Your task to perform on an android device: turn off notifications in google photos Image 0: 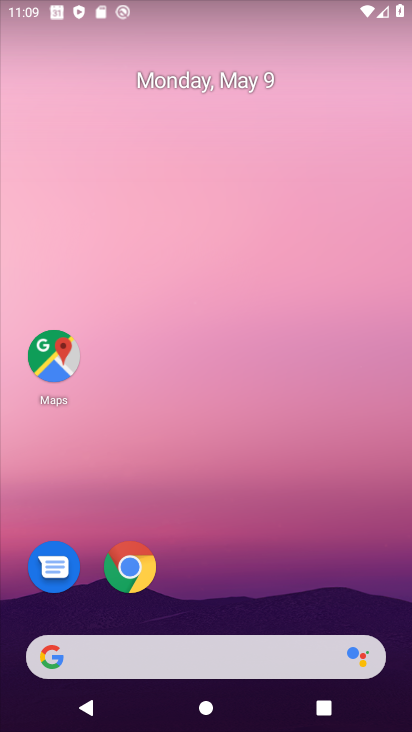
Step 0: drag from (399, 620) to (288, 114)
Your task to perform on an android device: turn off notifications in google photos Image 1: 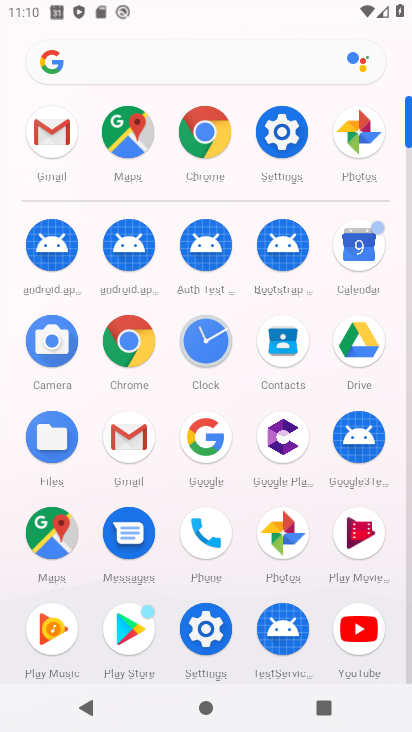
Step 1: click (282, 533)
Your task to perform on an android device: turn off notifications in google photos Image 2: 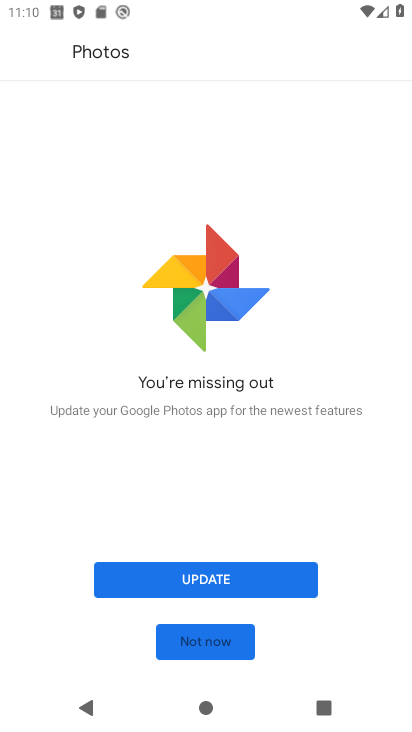
Step 2: click (225, 577)
Your task to perform on an android device: turn off notifications in google photos Image 3: 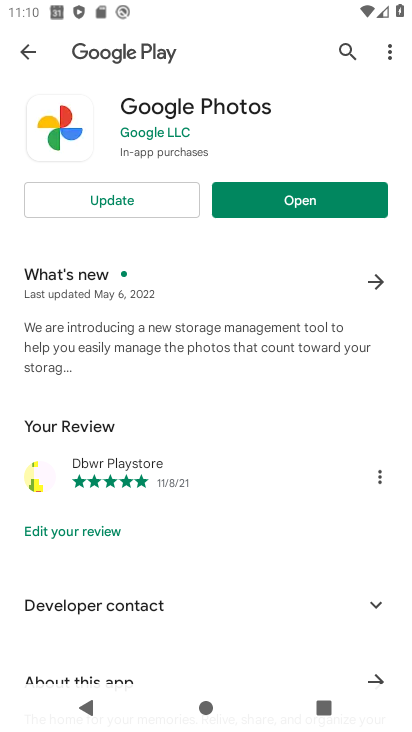
Step 3: click (141, 193)
Your task to perform on an android device: turn off notifications in google photos Image 4: 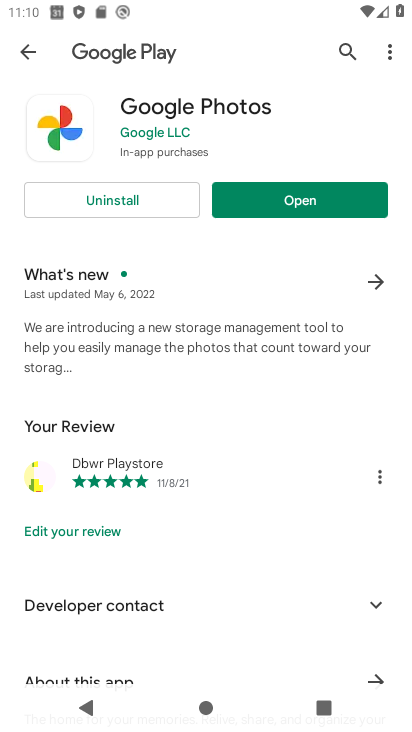
Step 4: click (274, 201)
Your task to perform on an android device: turn off notifications in google photos Image 5: 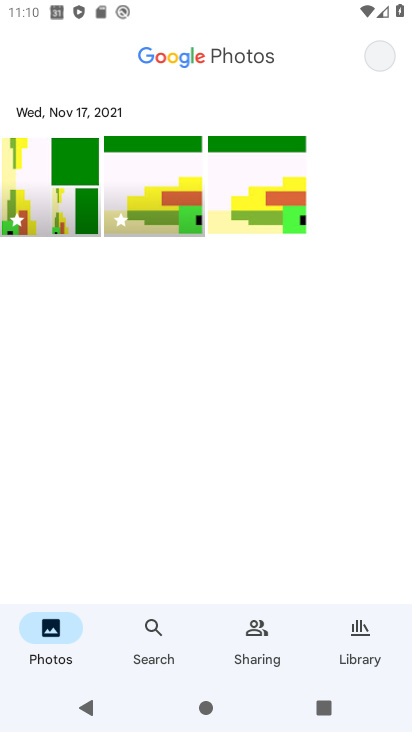
Step 5: click (378, 60)
Your task to perform on an android device: turn off notifications in google photos Image 6: 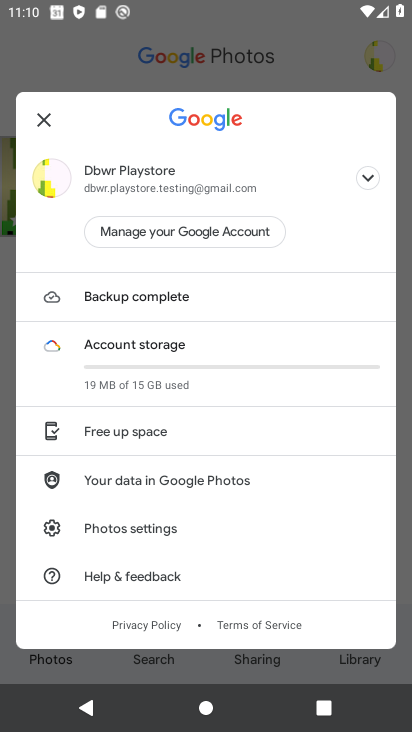
Step 6: click (190, 522)
Your task to perform on an android device: turn off notifications in google photos Image 7: 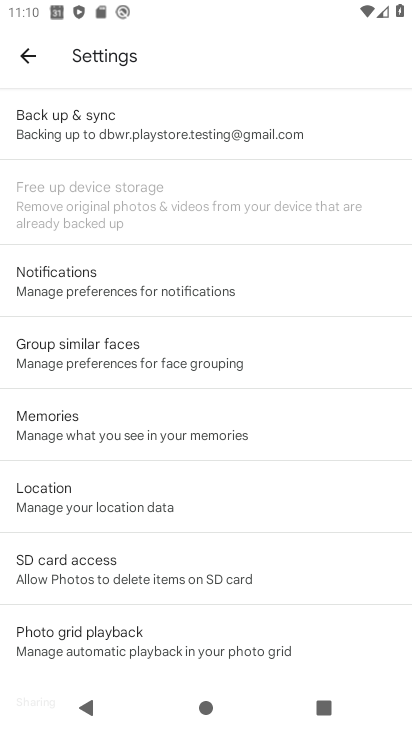
Step 7: click (47, 296)
Your task to perform on an android device: turn off notifications in google photos Image 8: 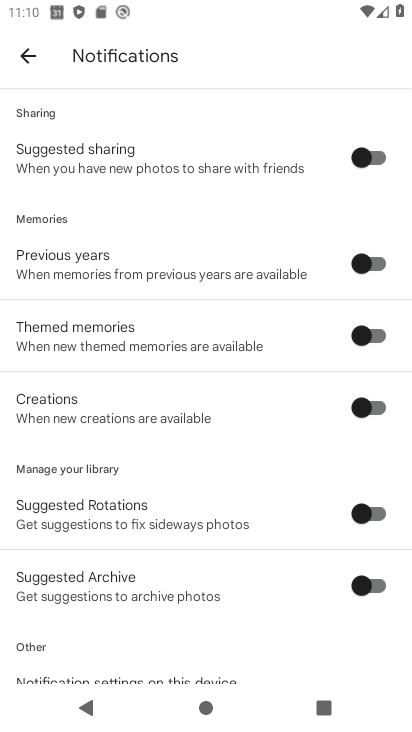
Step 8: task complete